Your task to perform on an android device: Search for sushi restaurants on Maps Image 0: 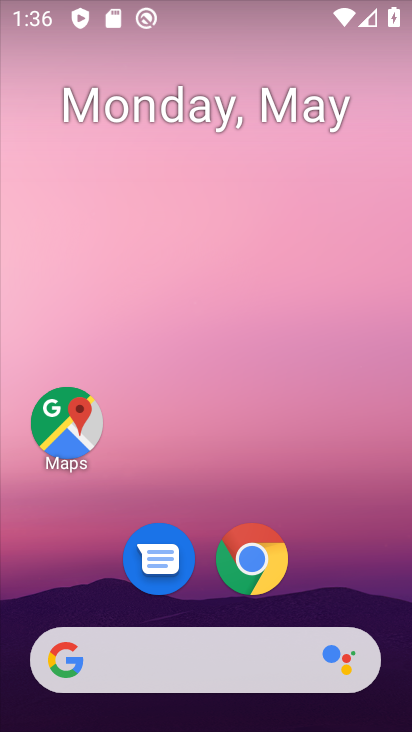
Step 0: click (78, 426)
Your task to perform on an android device: Search for sushi restaurants on Maps Image 1: 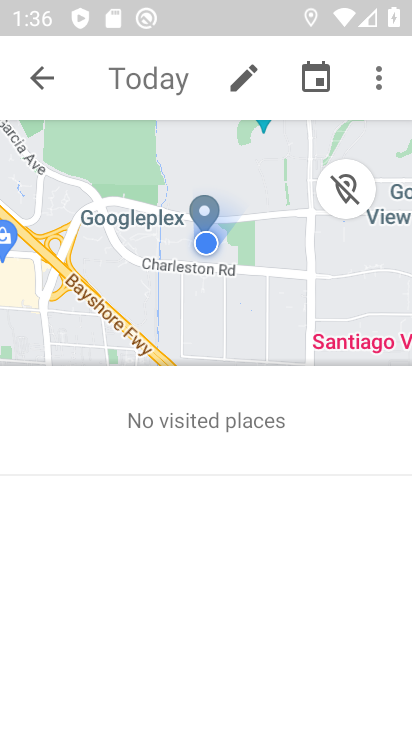
Step 1: click (49, 84)
Your task to perform on an android device: Search for sushi restaurants on Maps Image 2: 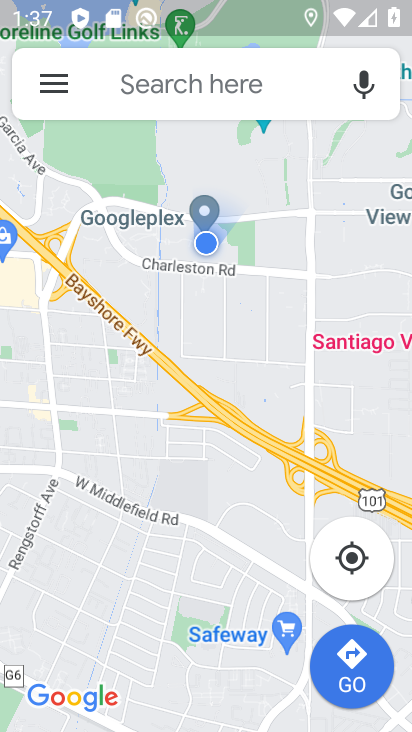
Step 2: click (232, 73)
Your task to perform on an android device: Search for sushi restaurants on Maps Image 3: 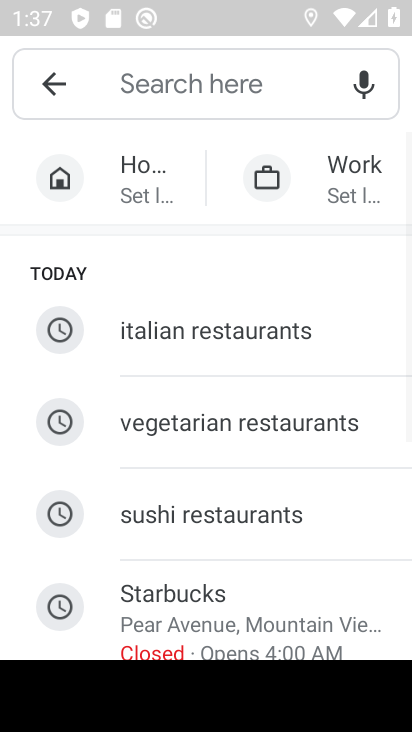
Step 3: click (228, 509)
Your task to perform on an android device: Search for sushi restaurants on Maps Image 4: 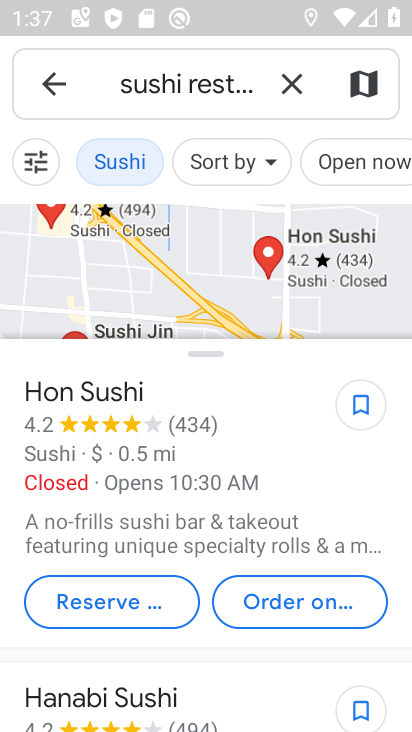
Step 4: task complete